Your task to perform on an android device: Go to settings Image 0: 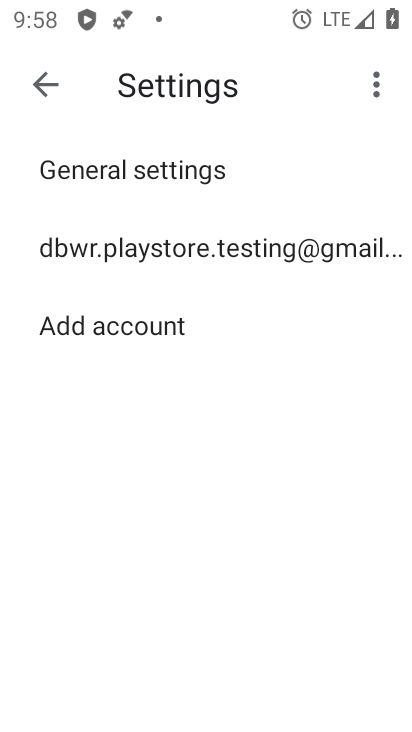
Step 0: press home button
Your task to perform on an android device: Go to settings Image 1: 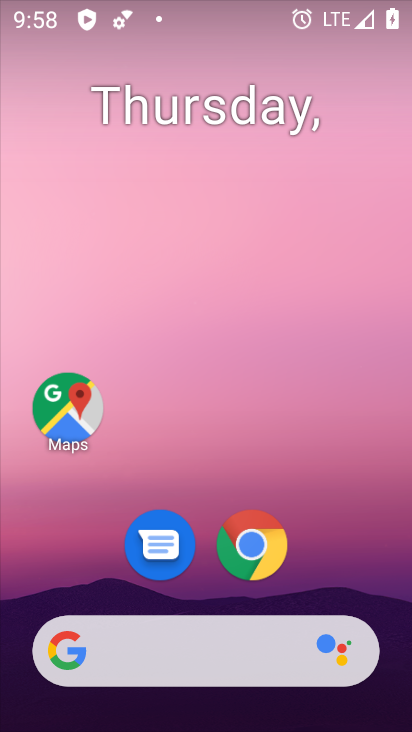
Step 1: drag from (334, 526) to (274, 40)
Your task to perform on an android device: Go to settings Image 2: 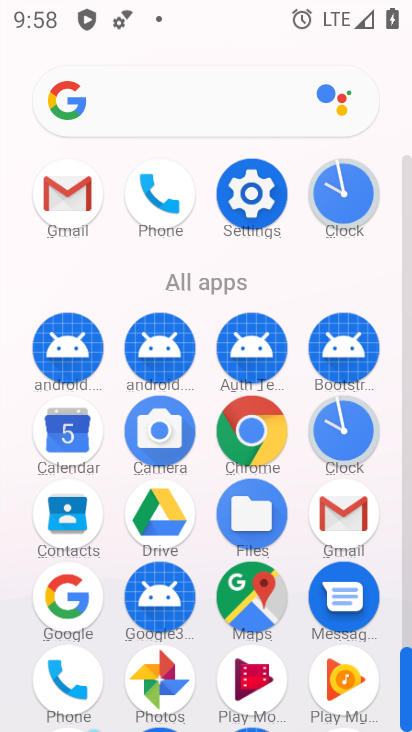
Step 2: click (254, 199)
Your task to perform on an android device: Go to settings Image 3: 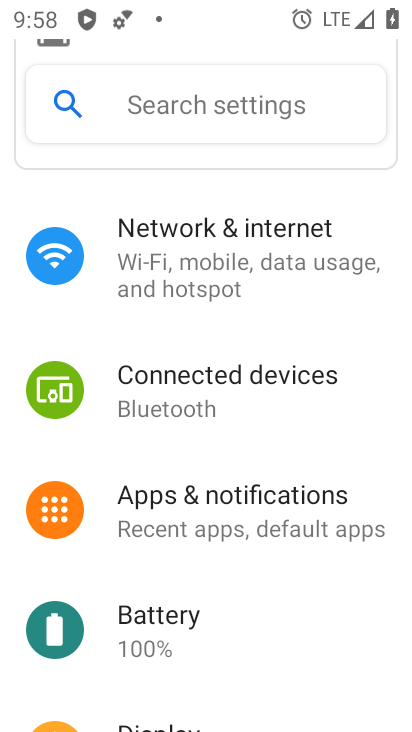
Step 3: task complete